Your task to perform on an android device: Search for vegetarian restaurants on Maps Image 0: 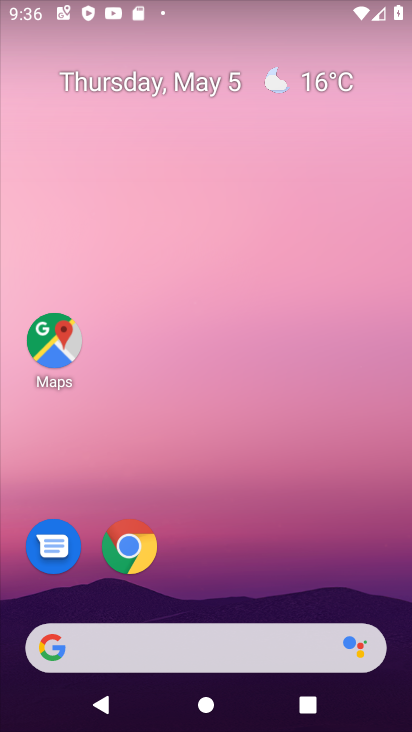
Step 0: drag from (198, 577) to (274, 8)
Your task to perform on an android device: Search for vegetarian restaurants on Maps Image 1: 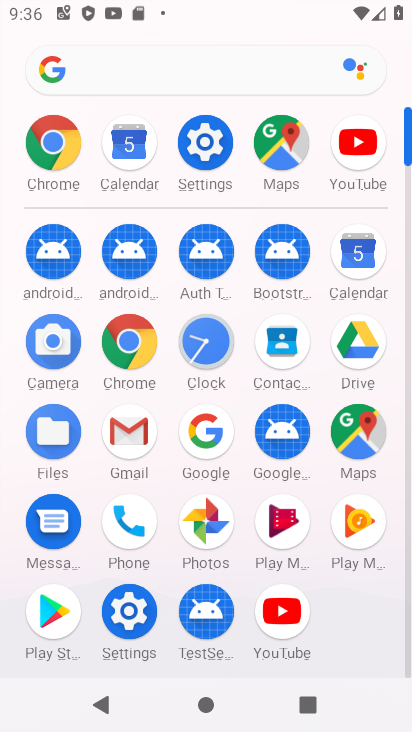
Step 1: click (374, 438)
Your task to perform on an android device: Search for vegetarian restaurants on Maps Image 2: 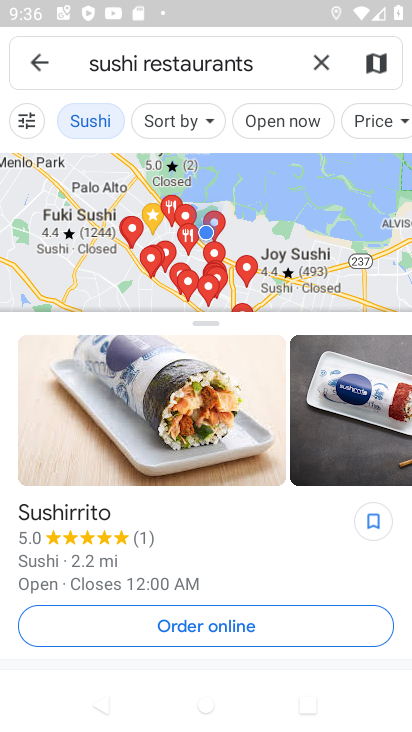
Step 2: click (314, 60)
Your task to perform on an android device: Search for vegetarian restaurants on Maps Image 3: 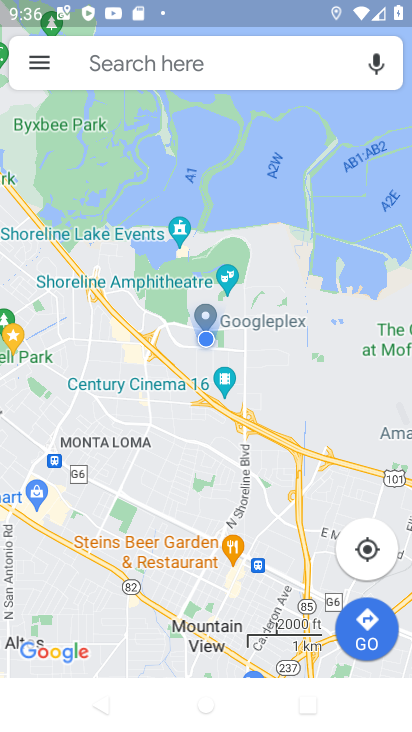
Step 3: click (276, 63)
Your task to perform on an android device: Search for vegetarian restaurants on Maps Image 4: 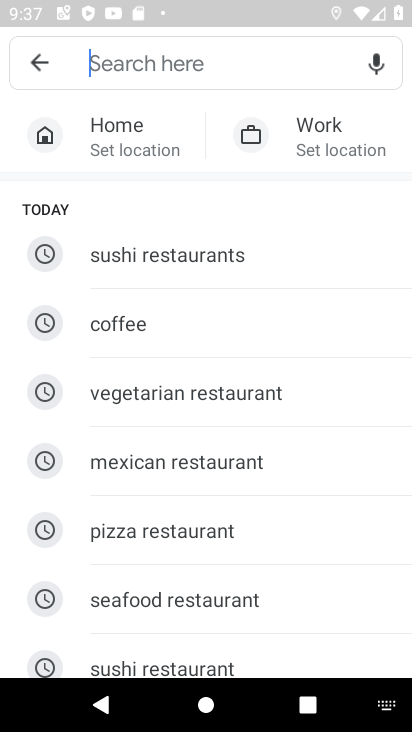
Step 4: type "vegetarian restaurants"
Your task to perform on an android device: Search for vegetarian restaurants on Maps Image 5: 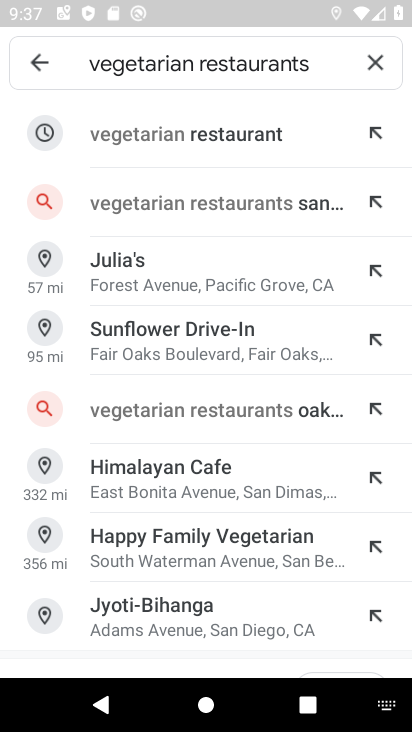
Step 5: click (180, 119)
Your task to perform on an android device: Search for vegetarian restaurants on Maps Image 6: 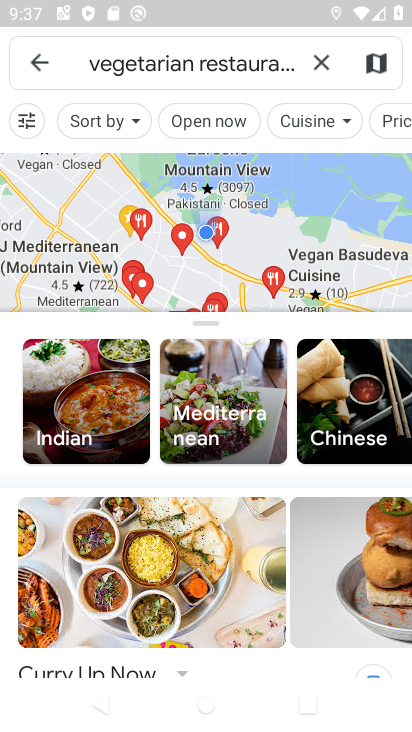
Step 6: task complete